Your task to perform on an android device: Do I have any events this weekend? Image 0: 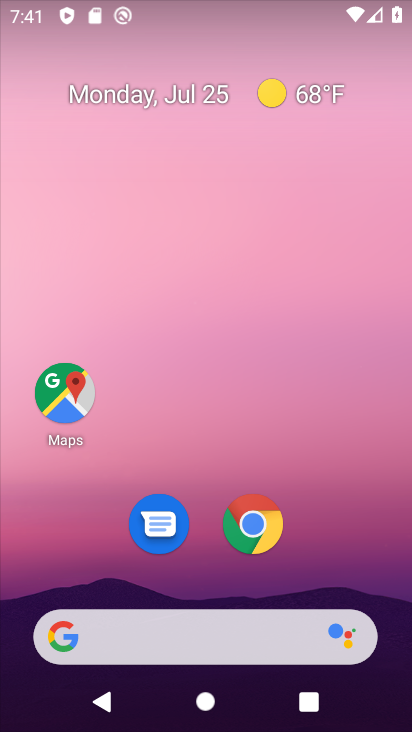
Step 0: drag from (312, 544) to (312, 86)
Your task to perform on an android device: Do I have any events this weekend? Image 1: 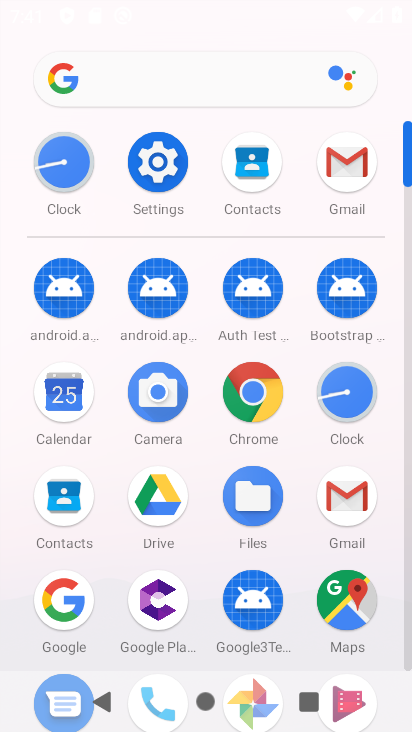
Step 1: click (73, 397)
Your task to perform on an android device: Do I have any events this weekend? Image 2: 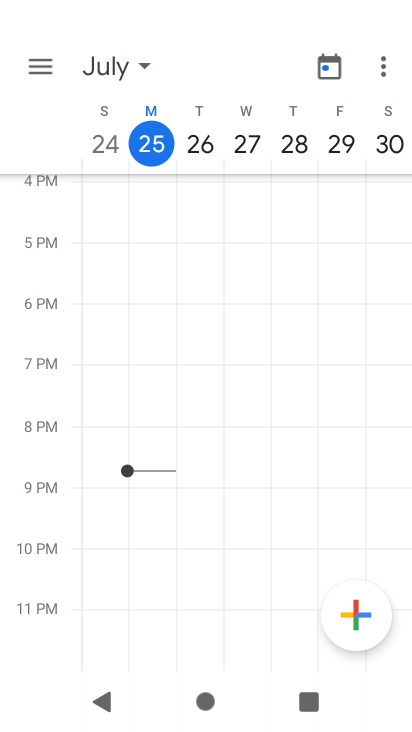
Step 2: task complete